Your task to perform on an android device: check out phone information Image 0: 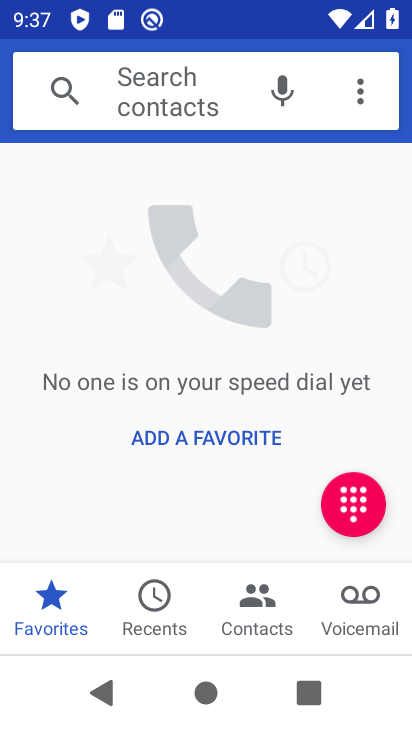
Step 0: press back button
Your task to perform on an android device: check out phone information Image 1: 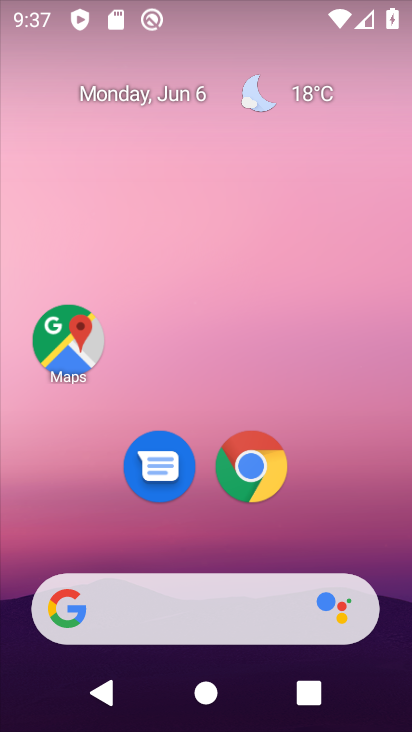
Step 1: drag from (284, 533) to (244, 92)
Your task to perform on an android device: check out phone information Image 2: 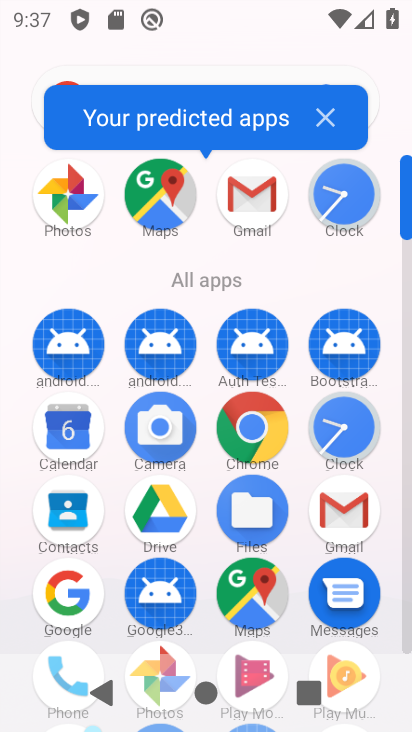
Step 2: drag from (210, 521) to (190, 215)
Your task to perform on an android device: check out phone information Image 3: 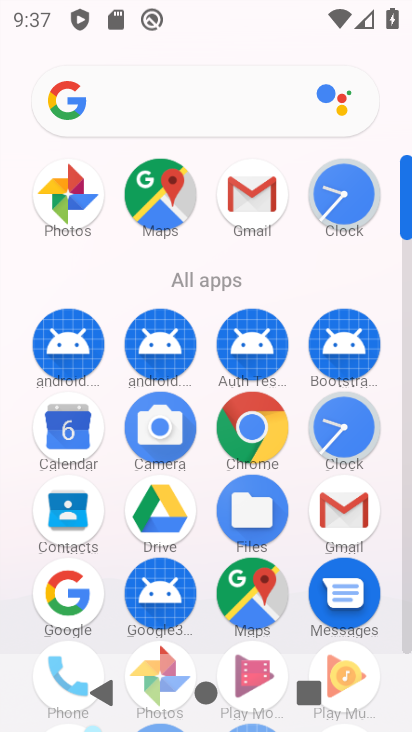
Step 3: drag from (155, 626) to (138, 299)
Your task to perform on an android device: check out phone information Image 4: 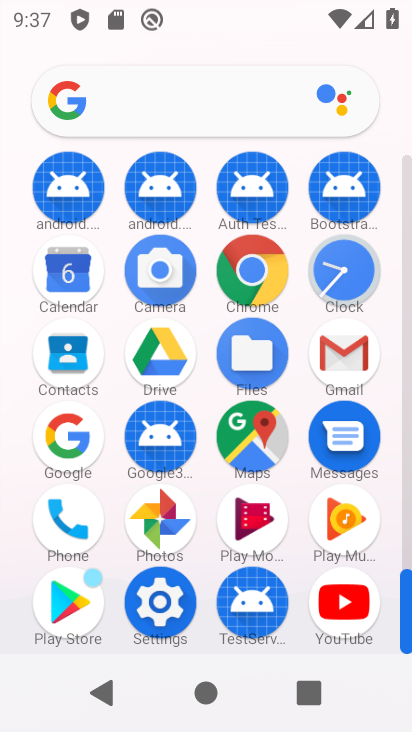
Step 4: drag from (197, 526) to (174, 269)
Your task to perform on an android device: check out phone information Image 5: 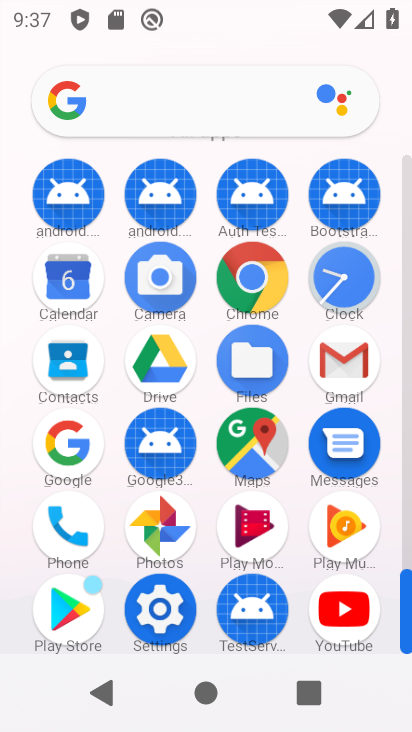
Step 5: click (168, 614)
Your task to perform on an android device: check out phone information Image 6: 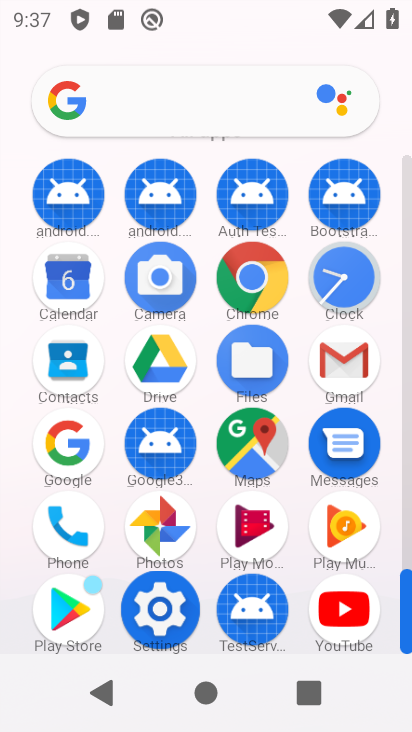
Step 6: click (168, 614)
Your task to perform on an android device: check out phone information Image 7: 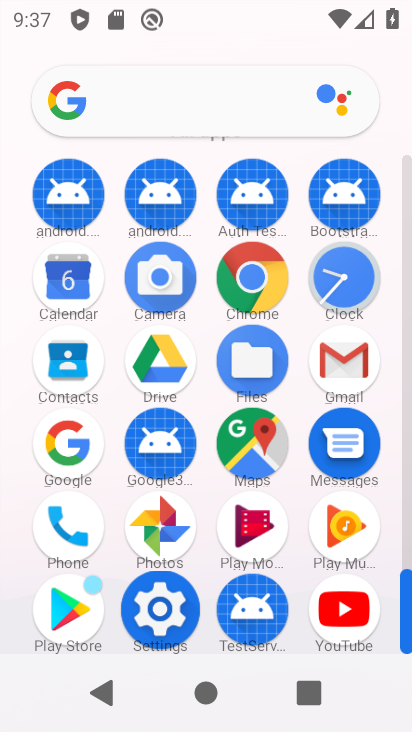
Step 7: click (168, 614)
Your task to perform on an android device: check out phone information Image 8: 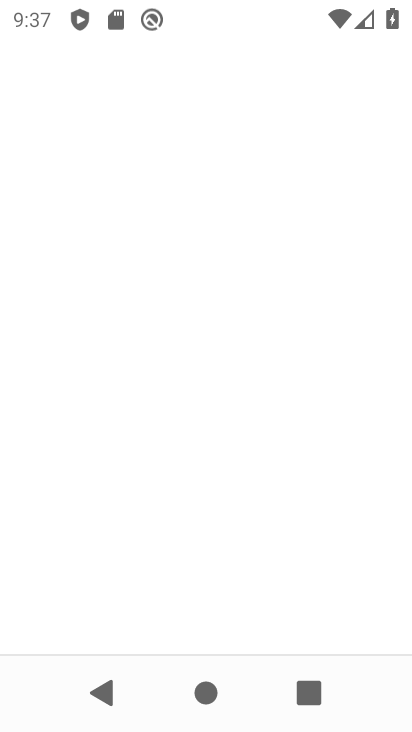
Step 8: click (168, 614)
Your task to perform on an android device: check out phone information Image 9: 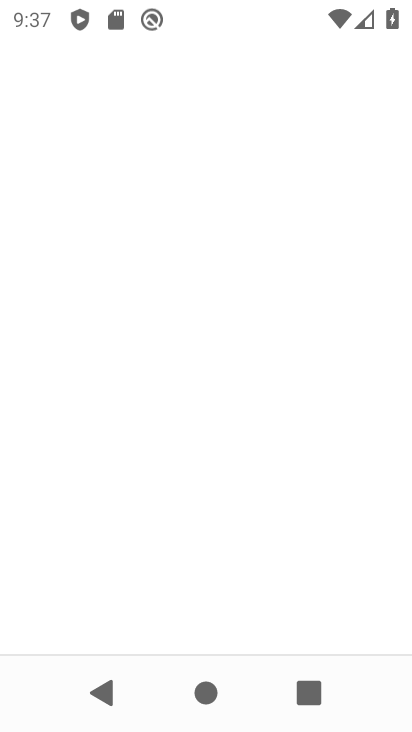
Step 9: click (168, 614)
Your task to perform on an android device: check out phone information Image 10: 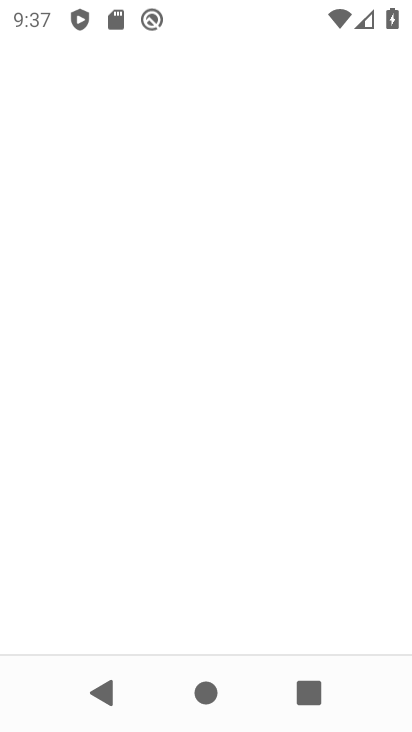
Step 10: click (168, 614)
Your task to perform on an android device: check out phone information Image 11: 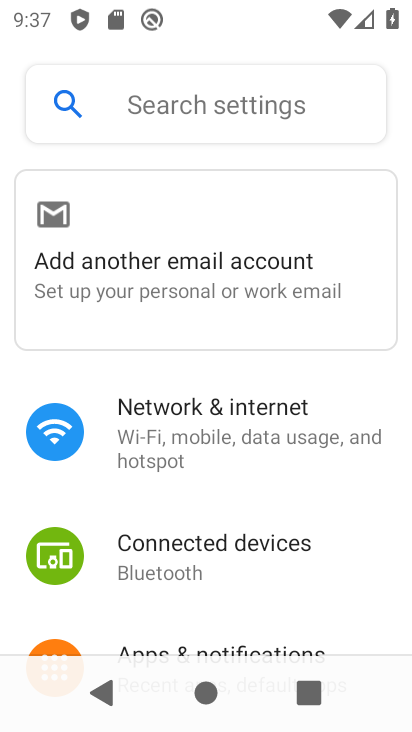
Step 11: drag from (223, 603) to (178, 239)
Your task to perform on an android device: check out phone information Image 12: 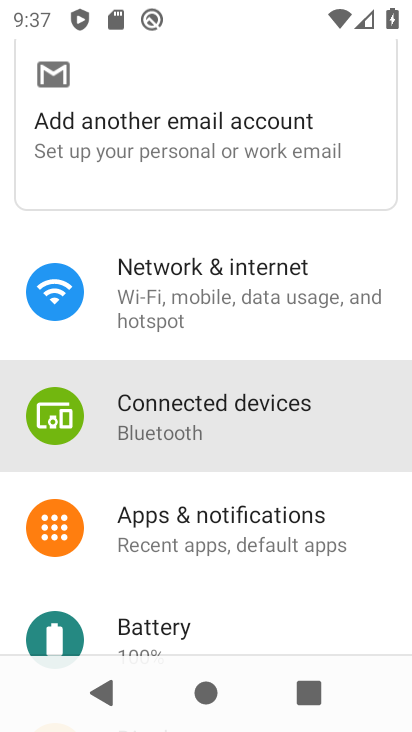
Step 12: drag from (153, 630) to (146, 295)
Your task to perform on an android device: check out phone information Image 13: 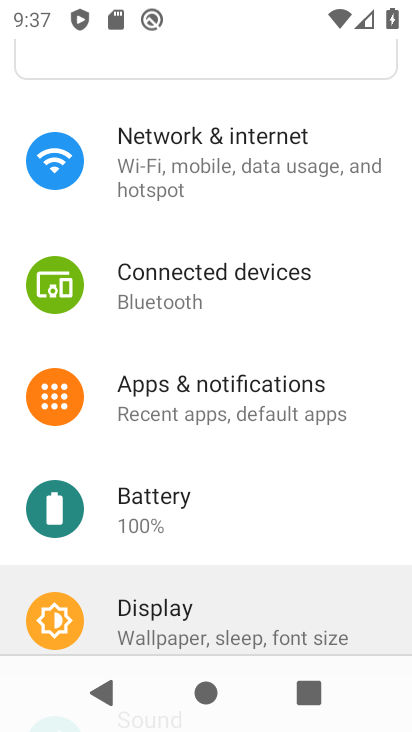
Step 13: drag from (234, 511) to (207, 306)
Your task to perform on an android device: check out phone information Image 14: 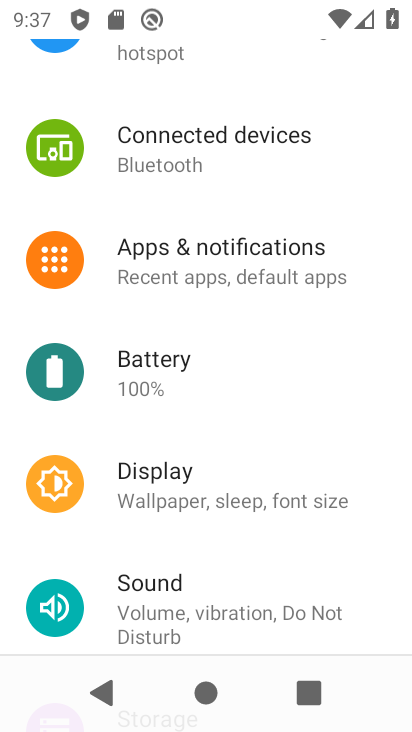
Step 14: drag from (194, 503) to (194, 331)
Your task to perform on an android device: check out phone information Image 15: 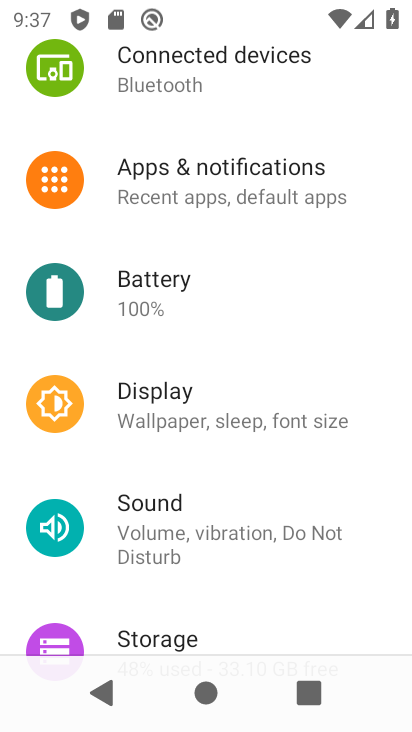
Step 15: drag from (230, 346) to (219, 210)
Your task to perform on an android device: check out phone information Image 16: 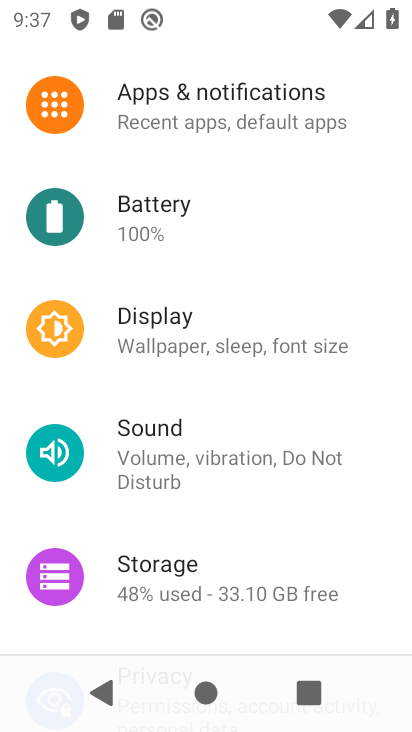
Step 16: drag from (253, 329) to (232, 207)
Your task to perform on an android device: check out phone information Image 17: 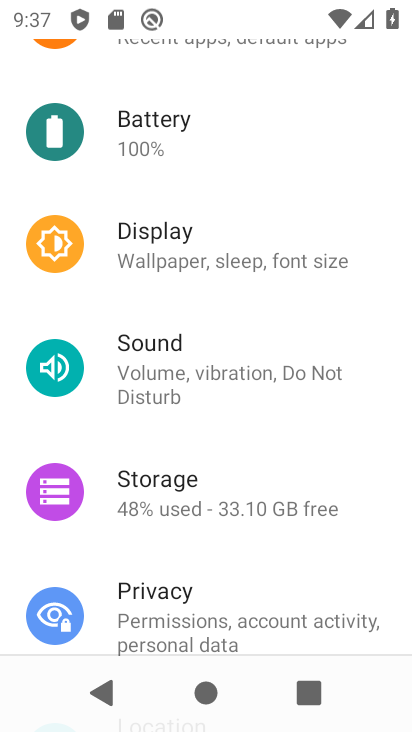
Step 17: drag from (166, 480) to (160, 216)
Your task to perform on an android device: check out phone information Image 18: 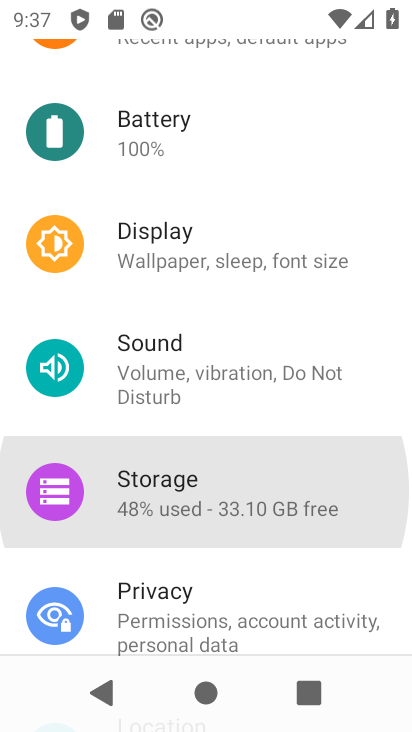
Step 18: drag from (229, 487) to (203, 236)
Your task to perform on an android device: check out phone information Image 19: 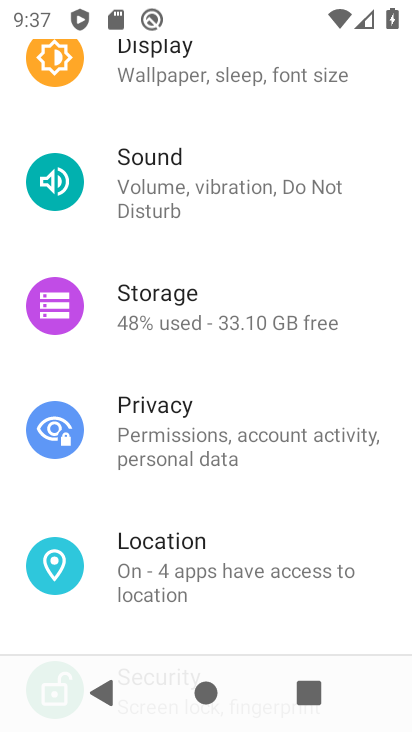
Step 19: drag from (232, 427) to (232, 209)
Your task to perform on an android device: check out phone information Image 20: 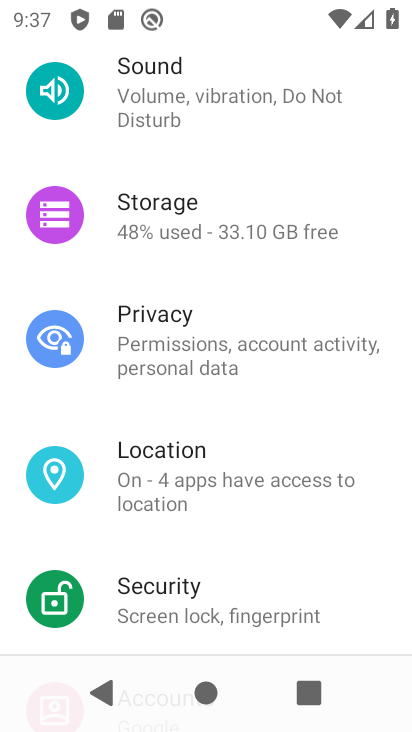
Step 20: drag from (272, 492) to (273, 231)
Your task to perform on an android device: check out phone information Image 21: 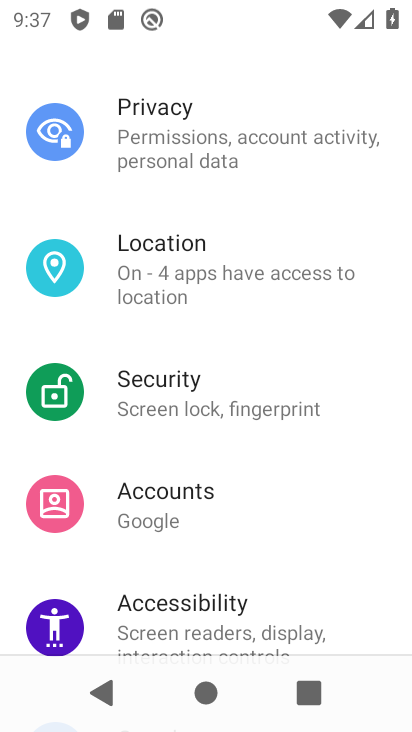
Step 21: drag from (267, 435) to (243, 253)
Your task to perform on an android device: check out phone information Image 22: 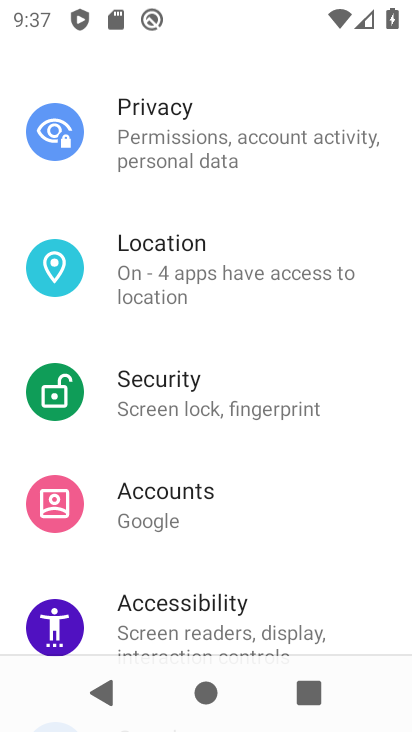
Step 22: drag from (232, 376) to (225, 213)
Your task to perform on an android device: check out phone information Image 23: 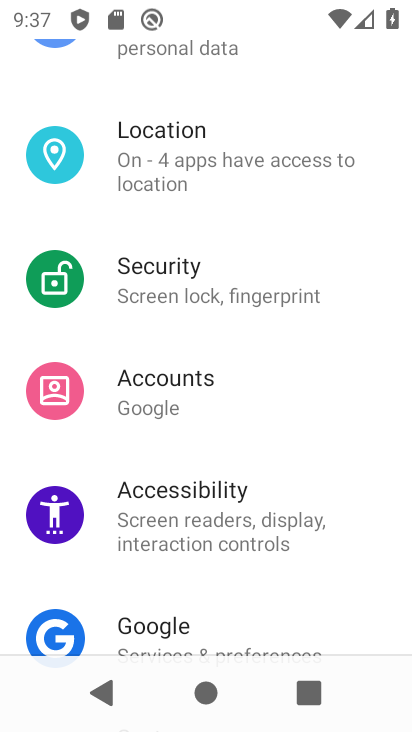
Step 23: drag from (245, 440) to (231, 211)
Your task to perform on an android device: check out phone information Image 24: 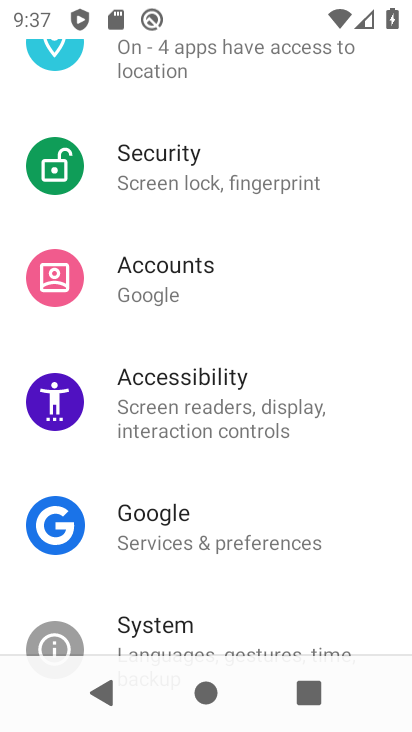
Step 24: drag from (268, 493) to (266, 259)
Your task to perform on an android device: check out phone information Image 25: 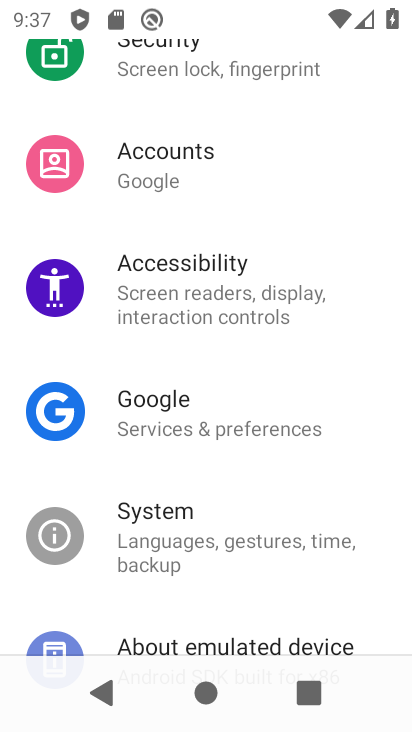
Step 25: click (244, 283)
Your task to perform on an android device: check out phone information Image 26: 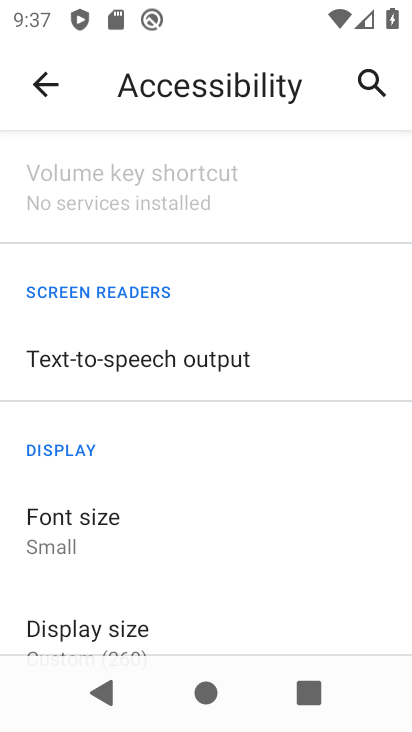
Step 26: drag from (257, 508) to (218, 255)
Your task to perform on an android device: check out phone information Image 27: 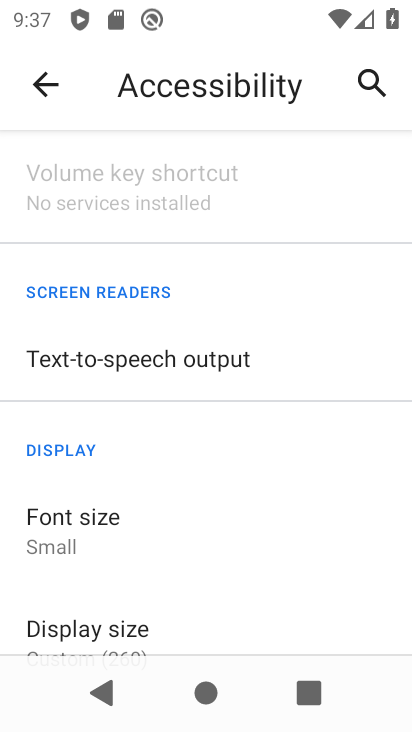
Step 27: drag from (266, 417) to (256, 167)
Your task to perform on an android device: check out phone information Image 28: 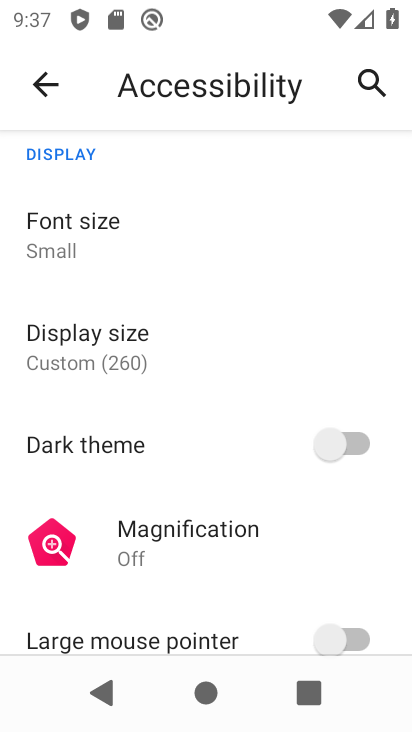
Step 28: click (44, 83)
Your task to perform on an android device: check out phone information Image 29: 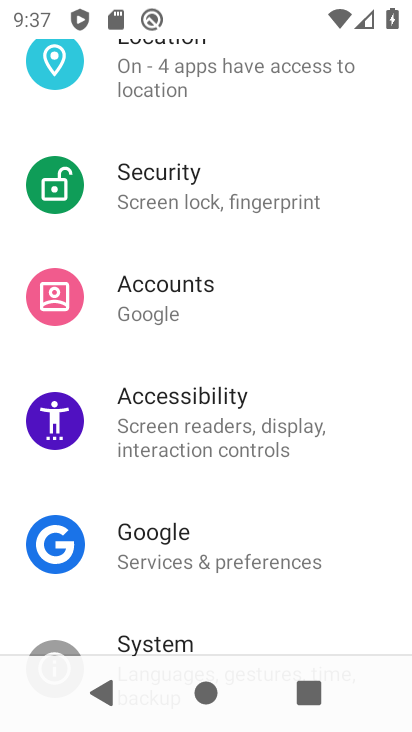
Step 29: drag from (242, 391) to (217, 107)
Your task to perform on an android device: check out phone information Image 30: 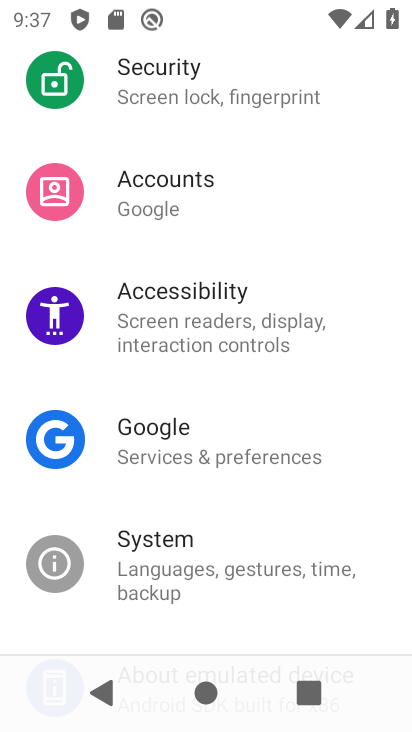
Step 30: drag from (247, 449) to (240, 244)
Your task to perform on an android device: check out phone information Image 31: 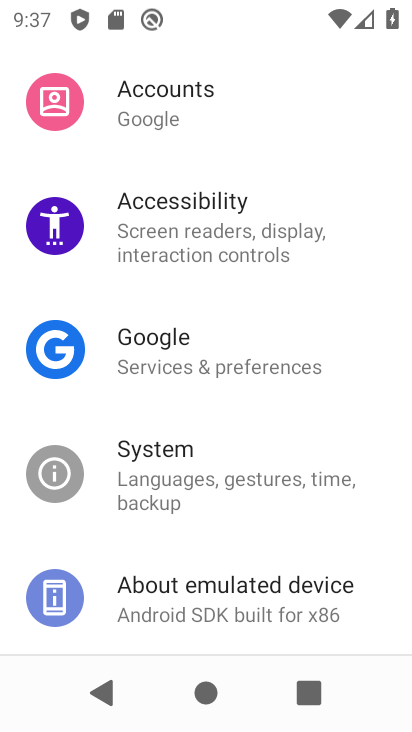
Step 31: drag from (265, 450) to (260, 248)
Your task to perform on an android device: check out phone information Image 32: 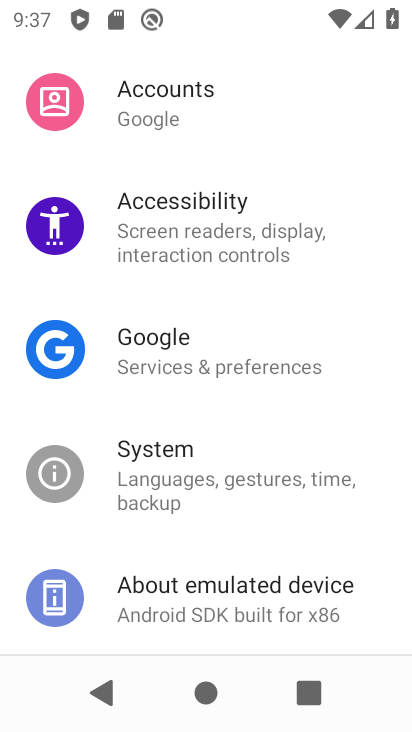
Step 32: click (182, 587)
Your task to perform on an android device: check out phone information Image 33: 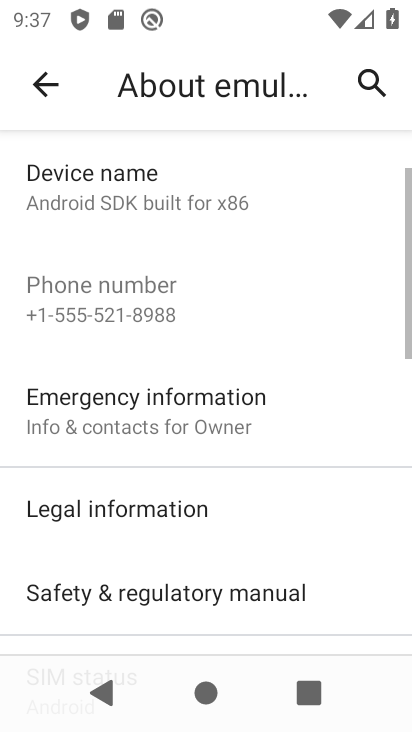
Step 33: task complete